Your task to perform on an android device: add a contact in the contacts app Image 0: 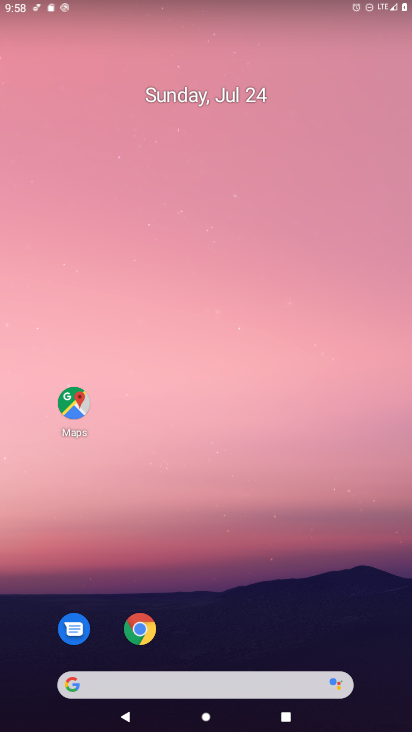
Step 0: drag from (324, 611) to (164, 42)
Your task to perform on an android device: add a contact in the contacts app Image 1: 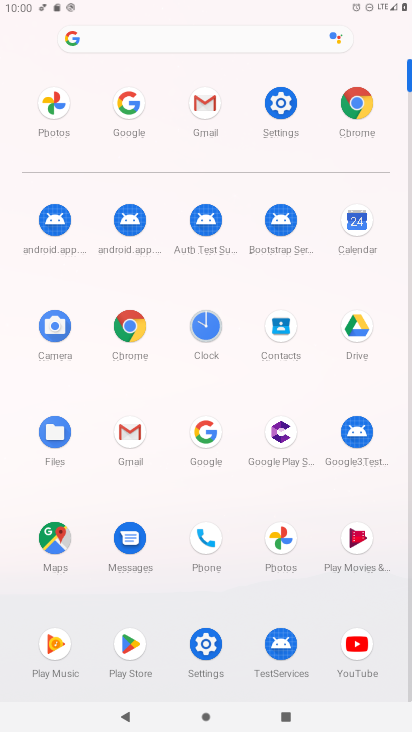
Step 1: click (281, 340)
Your task to perform on an android device: add a contact in the contacts app Image 2: 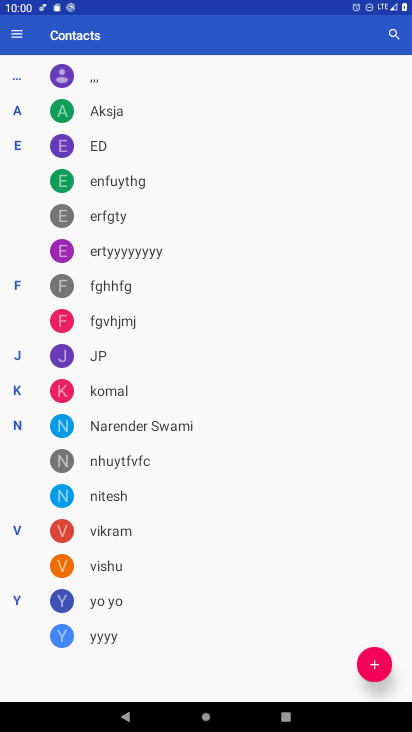
Step 2: click (366, 661)
Your task to perform on an android device: add a contact in the contacts app Image 3: 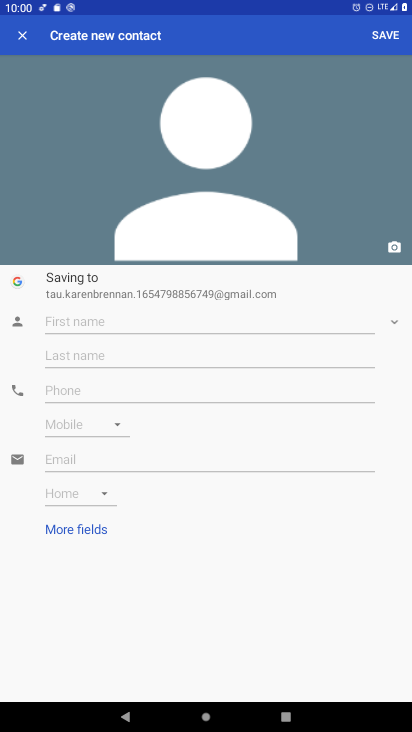
Step 3: type "arsh'"
Your task to perform on an android device: add a contact in the contacts app Image 4: 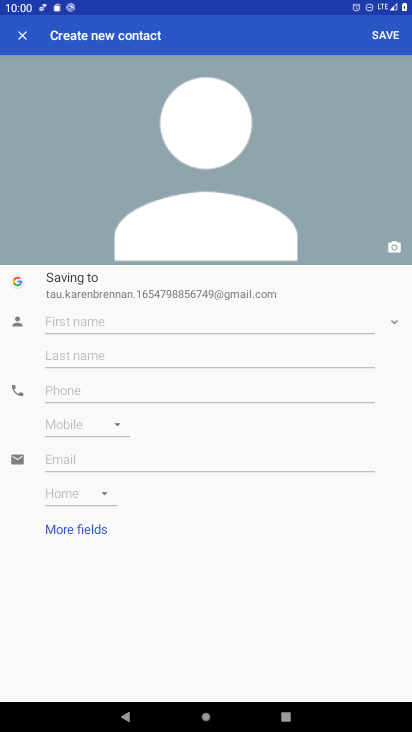
Step 4: click (89, 321)
Your task to perform on an android device: add a contact in the contacts app Image 5: 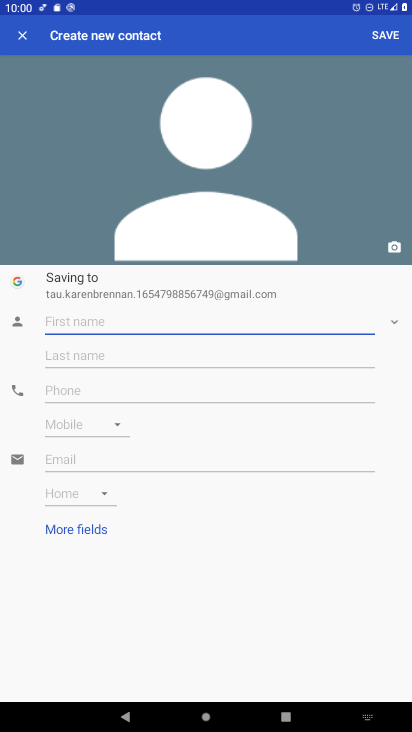
Step 5: type "arsh"
Your task to perform on an android device: add a contact in the contacts app Image 6: 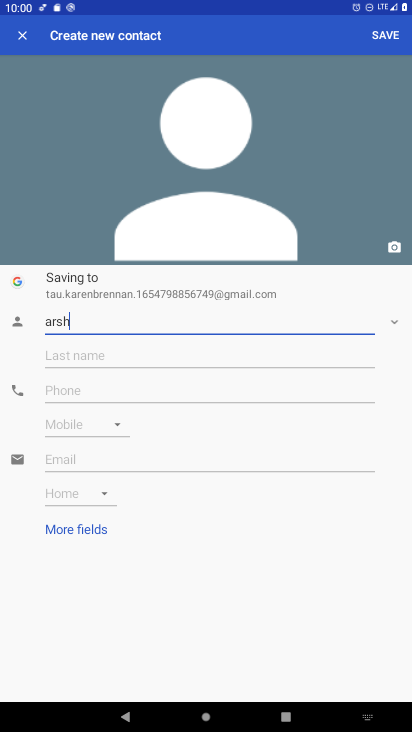
Step 6: click (380, 31)
Your task to perform on an android device: add a contact in the contacts app Image 7: 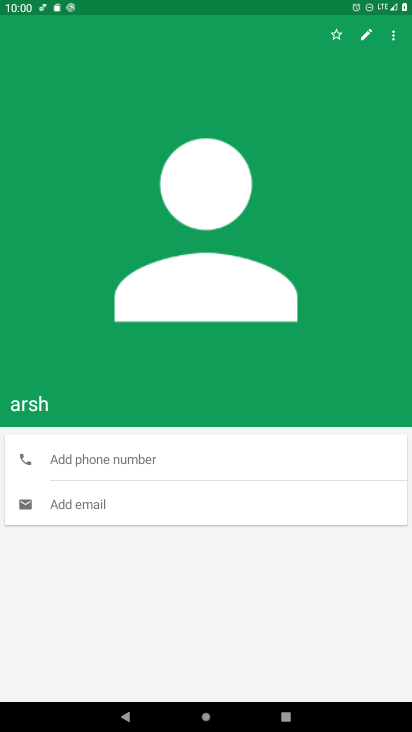
Step 7: task complete